Your task to perform on an android device: turn on bluetooth scan Image 0: 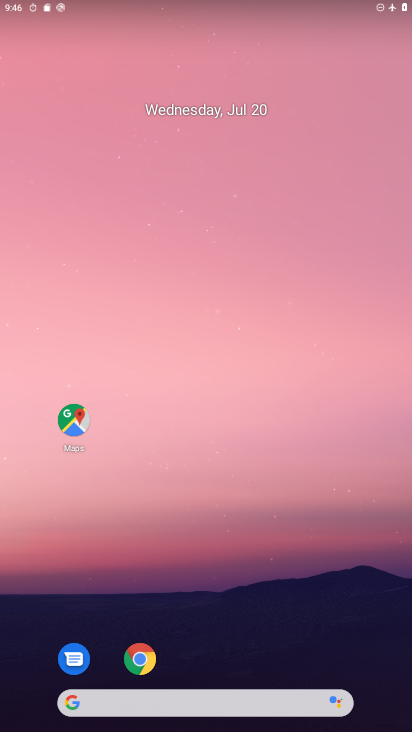
Step 0: drag from (188, 655) to (120, 160)
Your task to perform on an android device: turn on bluetooth scan Image 1: 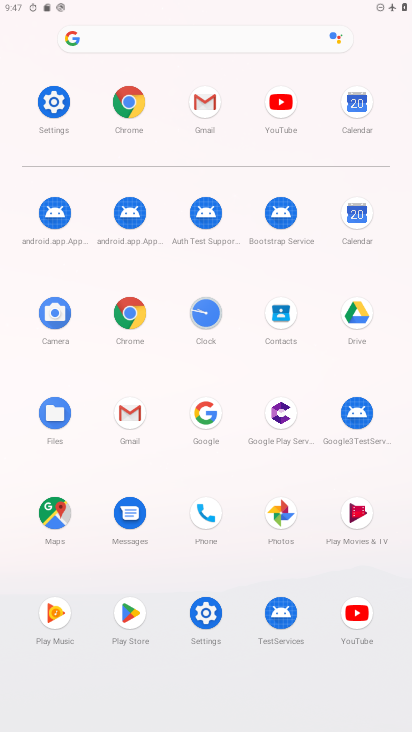
Step 1: click (48, 108)
Your task to perform on an android device: turn on bluetooth scan Image 2: 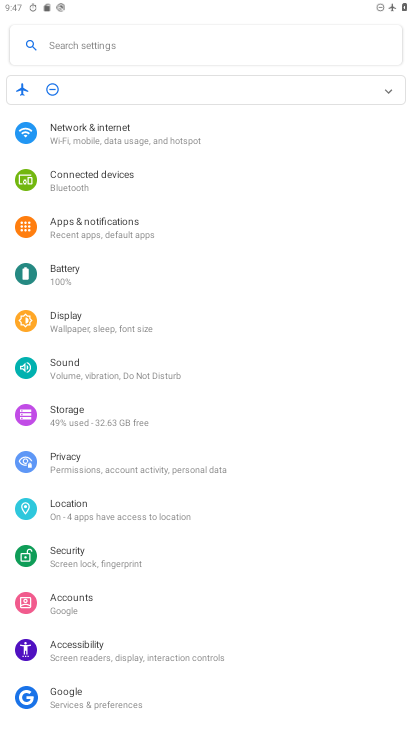
Step 2: drag from (137, 317) to (147, 177)
Your task to perform on an android device: turn on bluetooth scan Image 3: 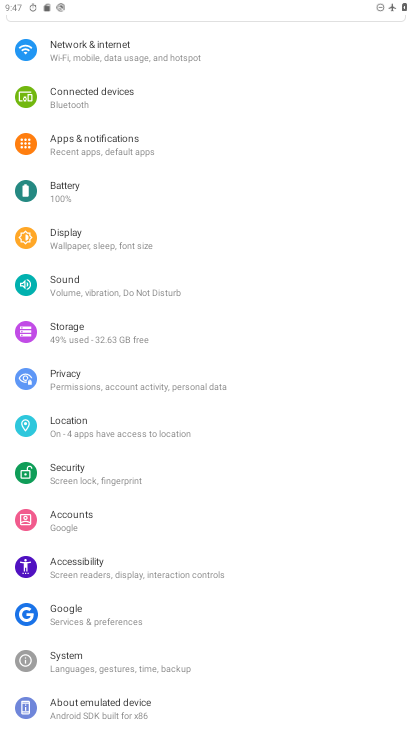
Step 3: click (87, 429)
Your task to perform on an android device: turn on bluetooth scan Image 4: 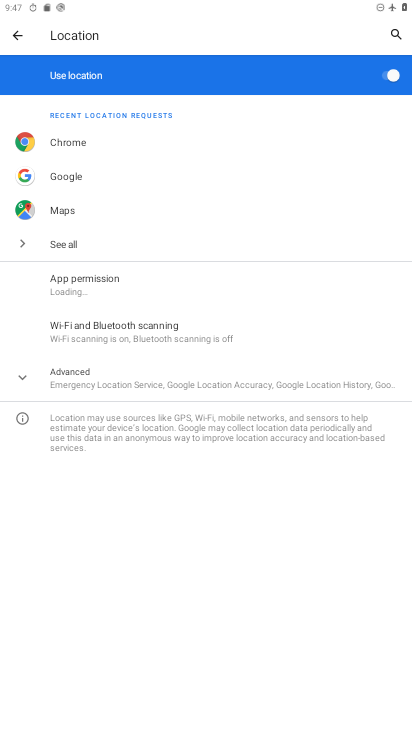
Step 4: click (95, 338)
Your task to perform on an android device: turn on bluetooth scan Image 5: 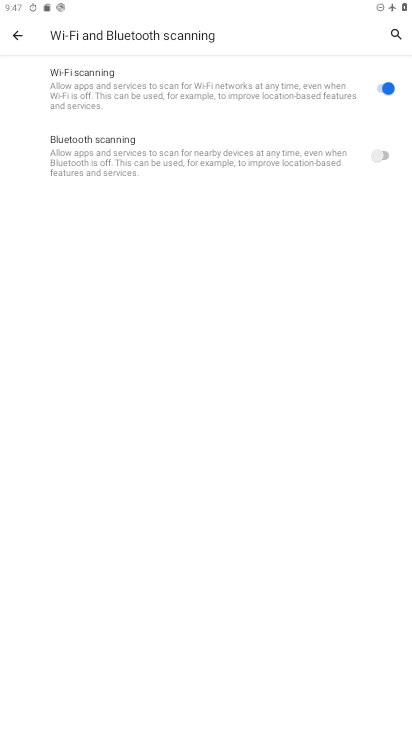
Step 5: click (376, 152)
Your task to perform on an android device: turn on bluetooth scan Image 6: 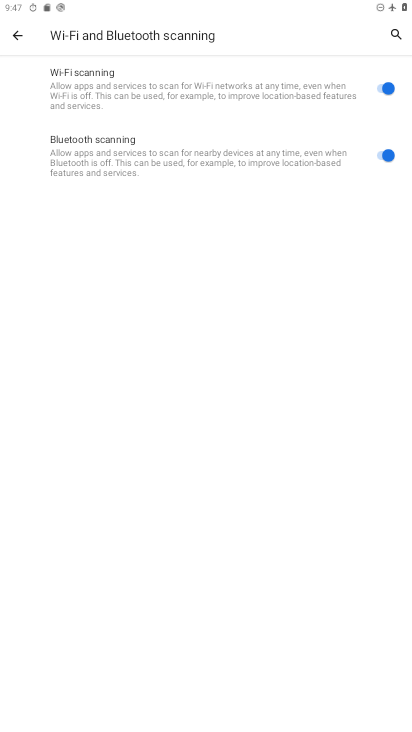
Step 6: task complete